Your task to perform on an android device: Open Amazon Image 0: 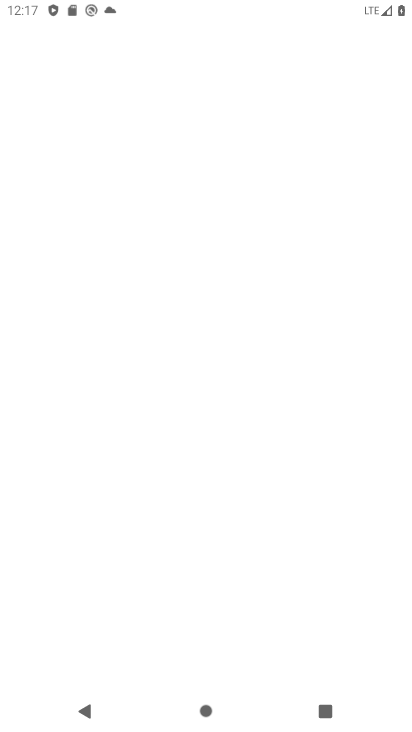
Step 0: press home button
Your task to perform on an android device: Open Amazon Image 1: 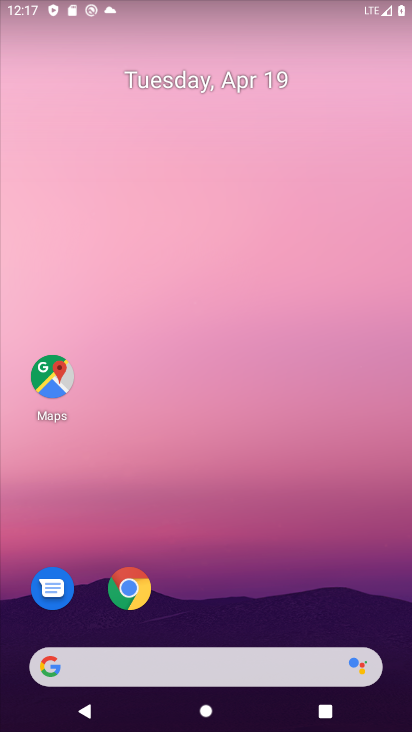
Step 1: drag from (368, 548) to (411, 213)
Your task to perform on an android device: Open Amazon Image 2: 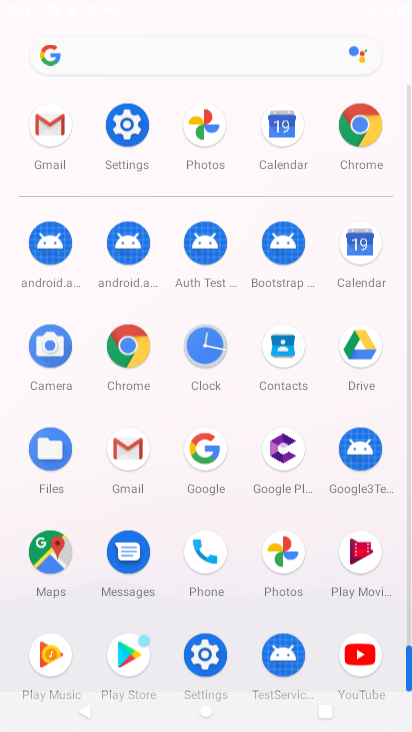
Step 2: click (372, 201)
Your task to perform on an android device: Open Amazon Image 3: 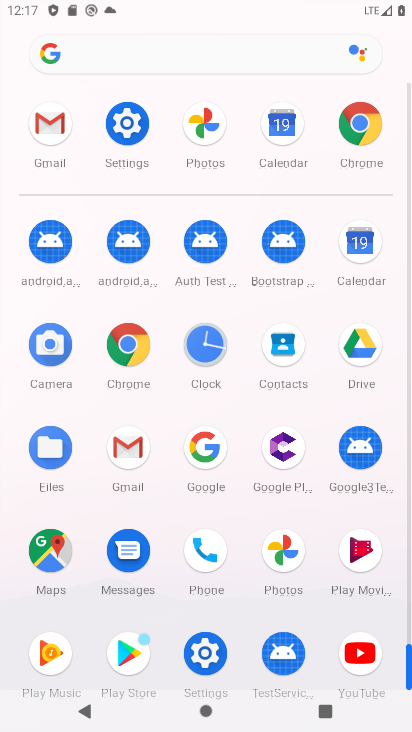
Step 3: click (356, 144)
Your task to perform on an android device: Open Amazon Image 4: 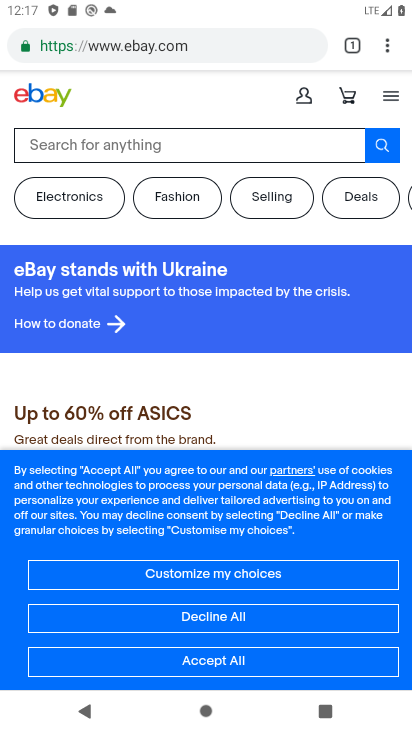
Step 4: press back button
Your task to perform on an android device: Open Amazon Image 5: 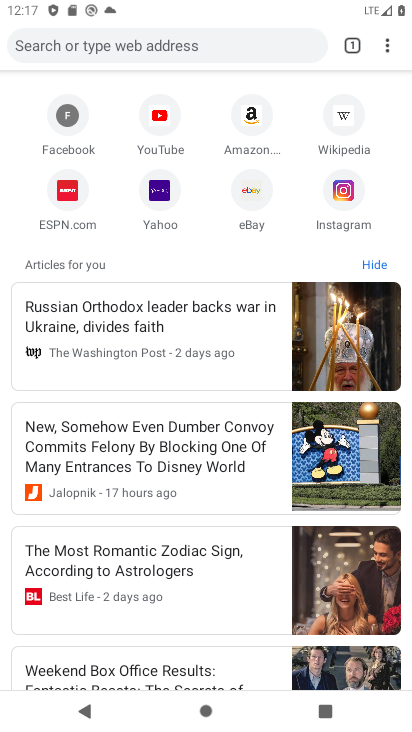
Step 5: click (258, 116)
Your task to perform on an android device: Open Amazon Image 6: 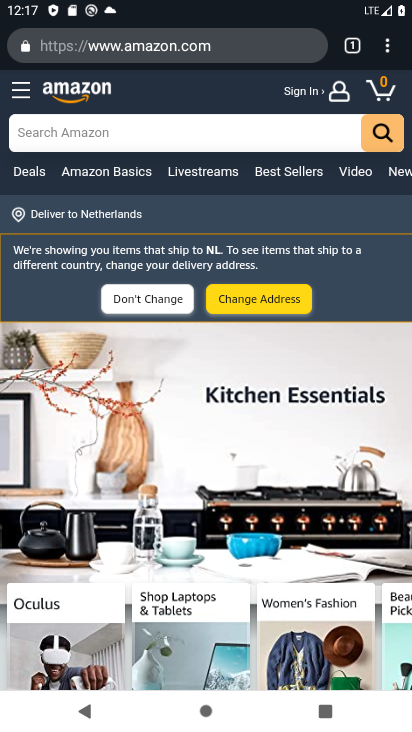
Step 6: task complete